Your task to perform on an android device: check storage Image 0: 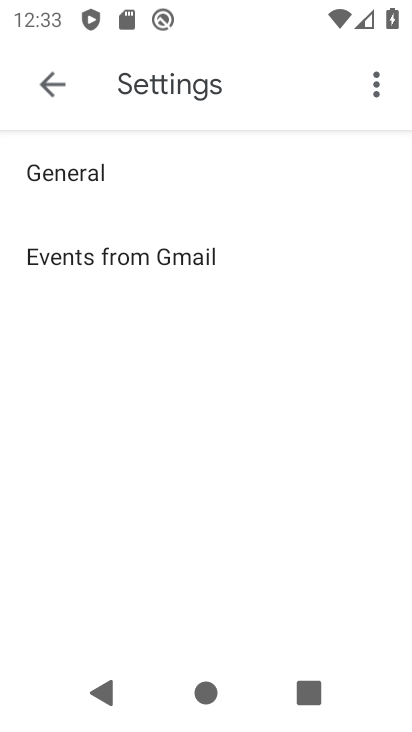
Step 0: press home button
Your task to perform on an android device: check storage Image 1: 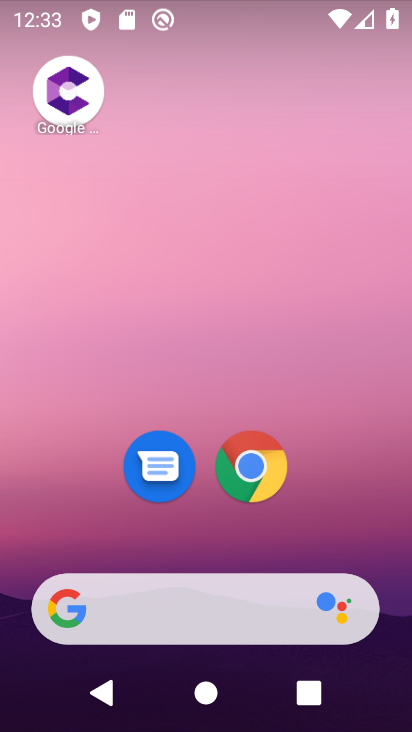
Step 1: drag from (230, 540) to (315, 14)
Your task to perform on an android device: check storage Image 2: 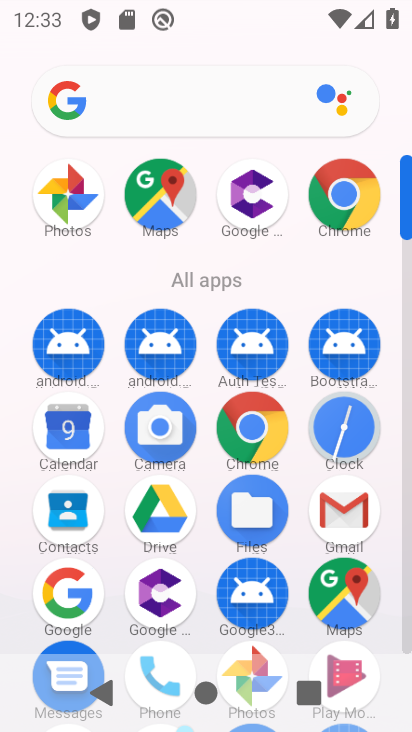
Step 2: click (406, 392)
Your task to perform on an android device: check storage Image 3: 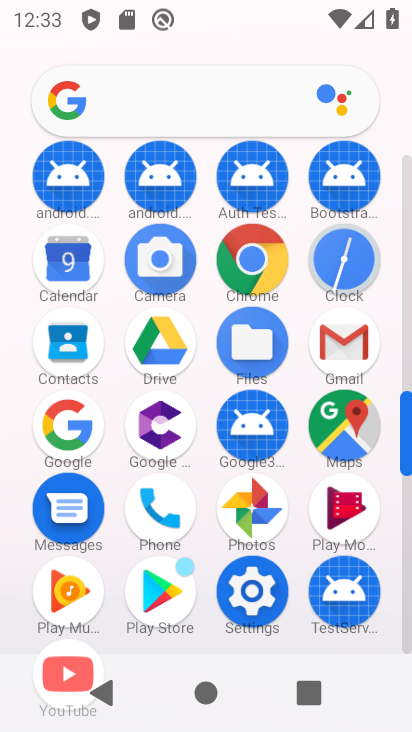
Step 3: click (265, 586)
Your task to perform on an android device: check storage Image 4: 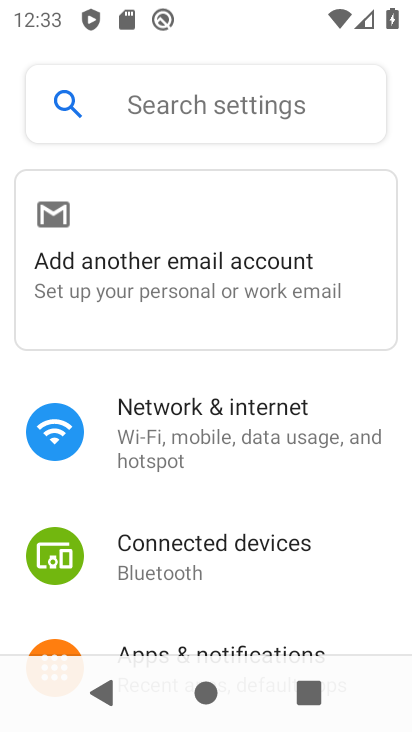
Step 4: drag from (264, 585) to (250, 186)
Your task to perform on an android device: check storage Image 5: 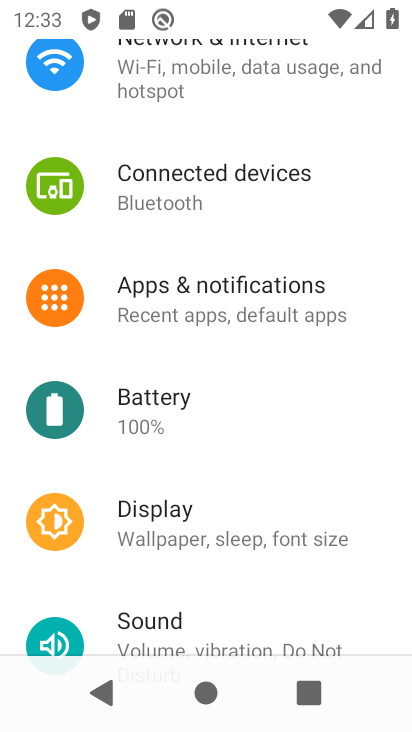
Step 5: drag from (270, 472) to (285, 198)
Your task to perform on an android device: check storage Image 6: 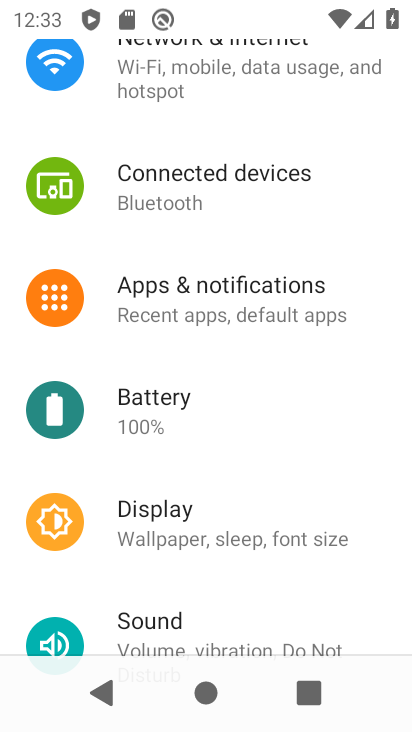
Step 6: drag from (225, 533) to (276, 74)
Your task to perform on an android device: check storage Image 7: 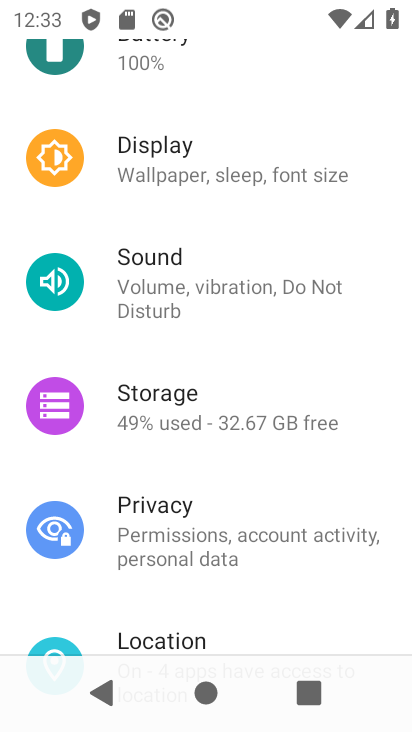
Step 7: drag from (254, 589) to (291, 150)
Your task to perform on an android device: check storage Image 8: 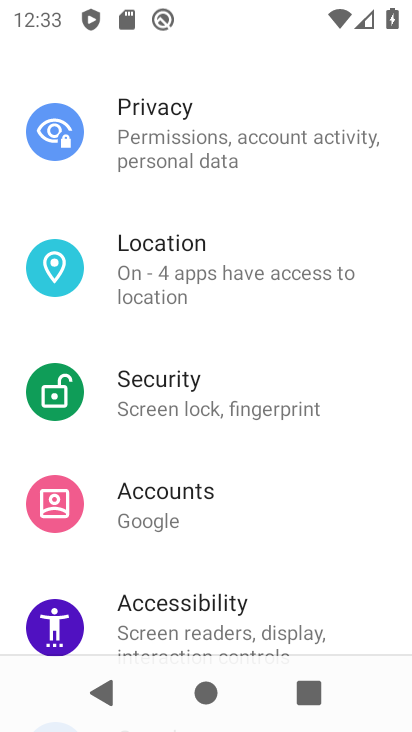
Step 8: drag from (184, 530) to (189, 291)
Your task to perform on an android device: check storage Image 9: 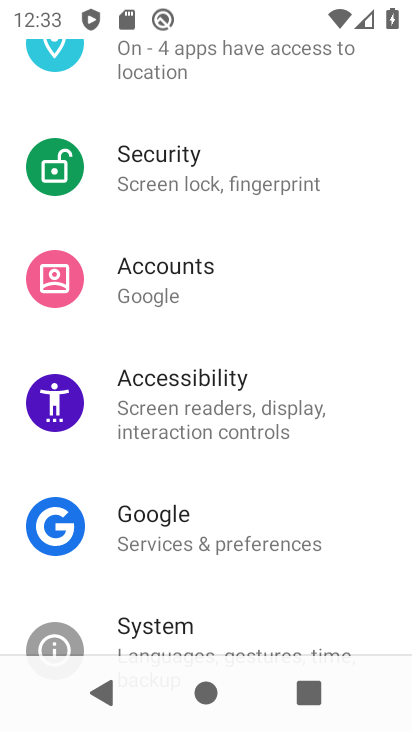
Step 9: drag from (199, 529) to (247, 131)
Your task to perform on an android device: check storage Image 10: 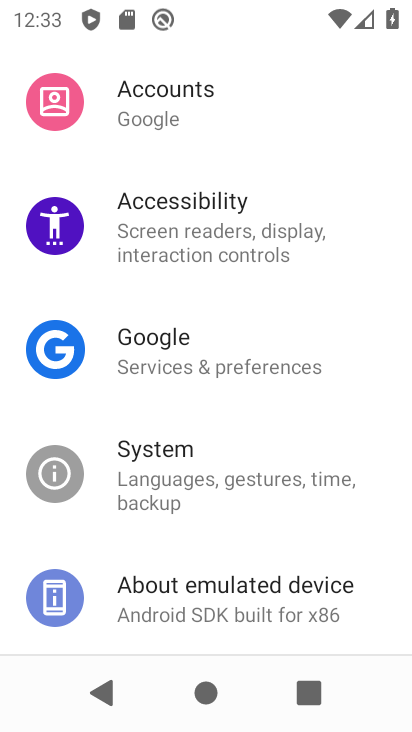
Step 10: drag from (247, 131) to (228, 518)
Your task to perform on an android device: check storage Image 11: 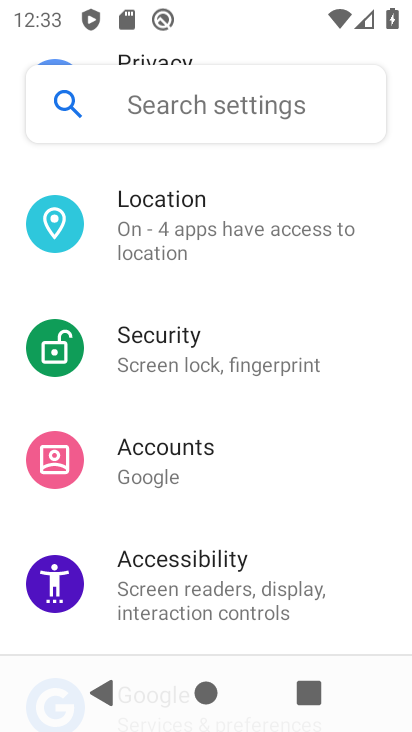
Step 11: drag from (225, 198) to (212, 667)
Your task to perform on an android device: check storage Image 12: 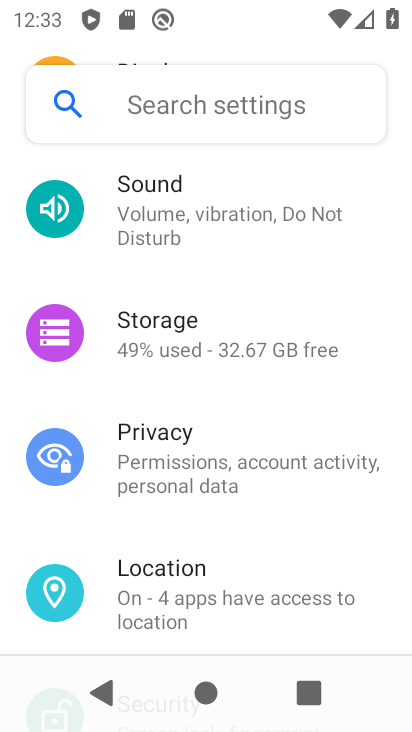
Step 12: drag from (221, 256) to (237, 474)
Your task to perform on an android device: check storage Image 13: 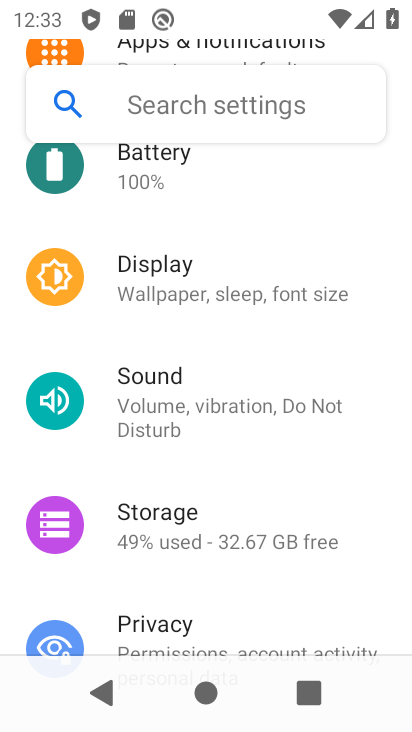
Step 13: drag from (274, 264) to (241, 592)
Your task to perform on an android device: check storage Image 14: 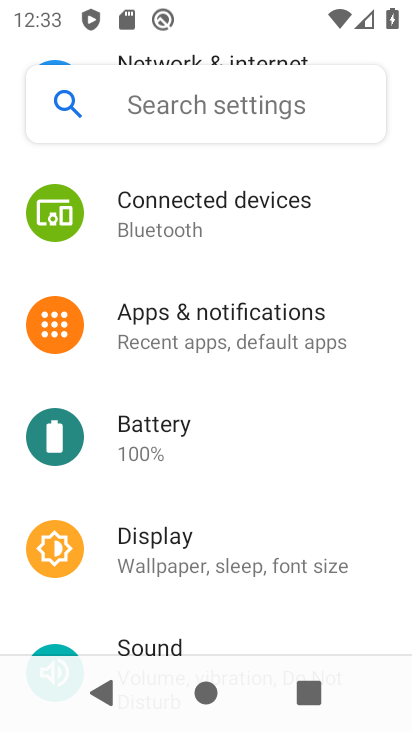
Step 14: drag from (245, 499) to (295, 82)
Your task to perform on an android device: check storage Image 15: 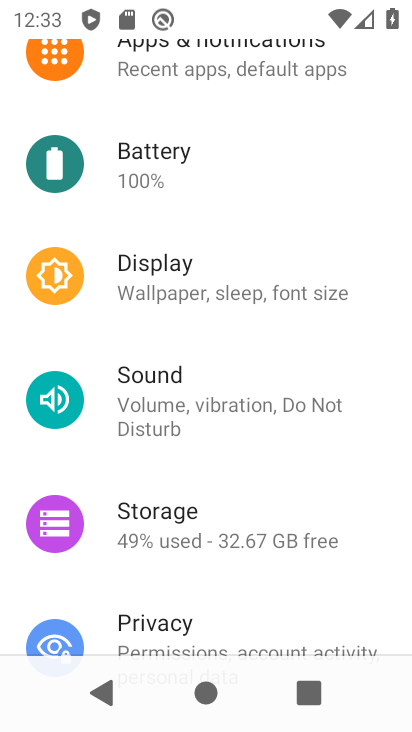
Step 15: click (197, 529)
Your task to perform on an android device: check storage Image 16: 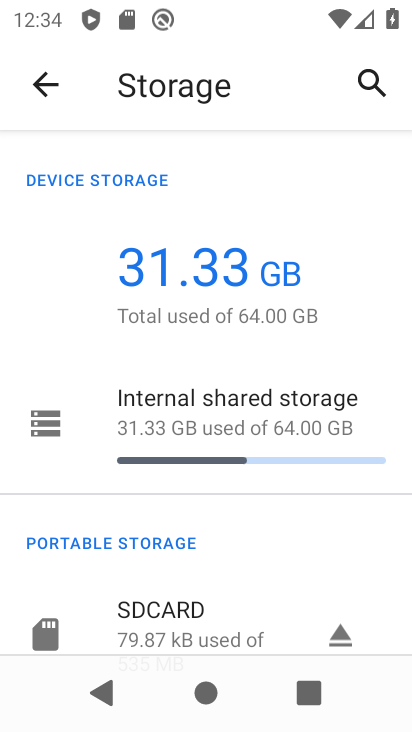
Step 16: click (242, 428)
Your task to perform on an android device: check storage Image 17: 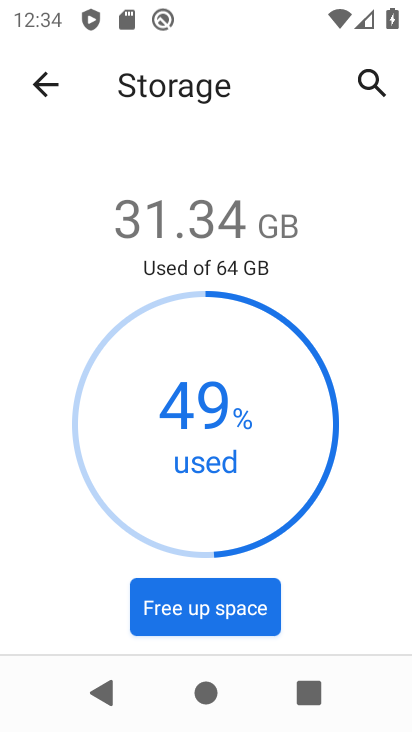
Step 17: task complete